Your task to perform on an android device: What's the news in Jamaica? Image 0: 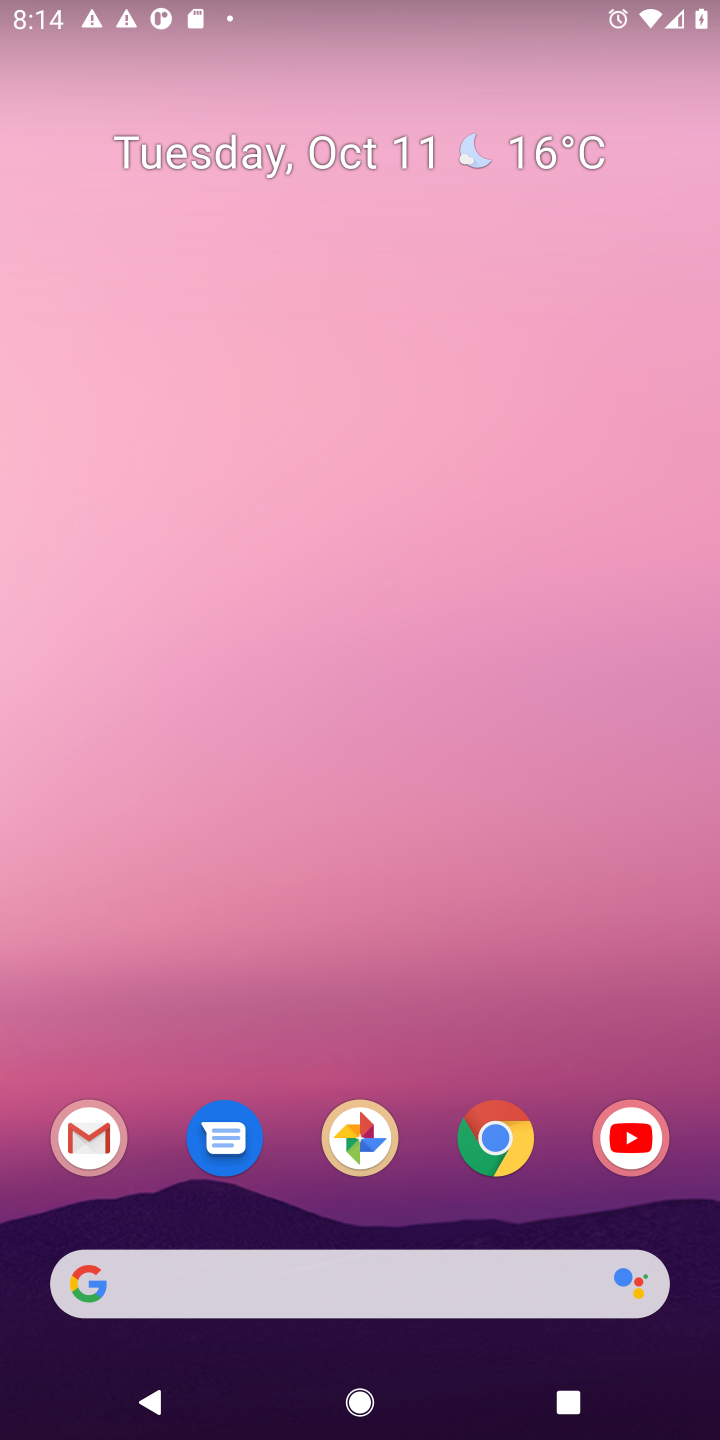
Step 0: click (333, 1267)
Your task to perform on an android device: What's the news in Jamaica? Image 1: 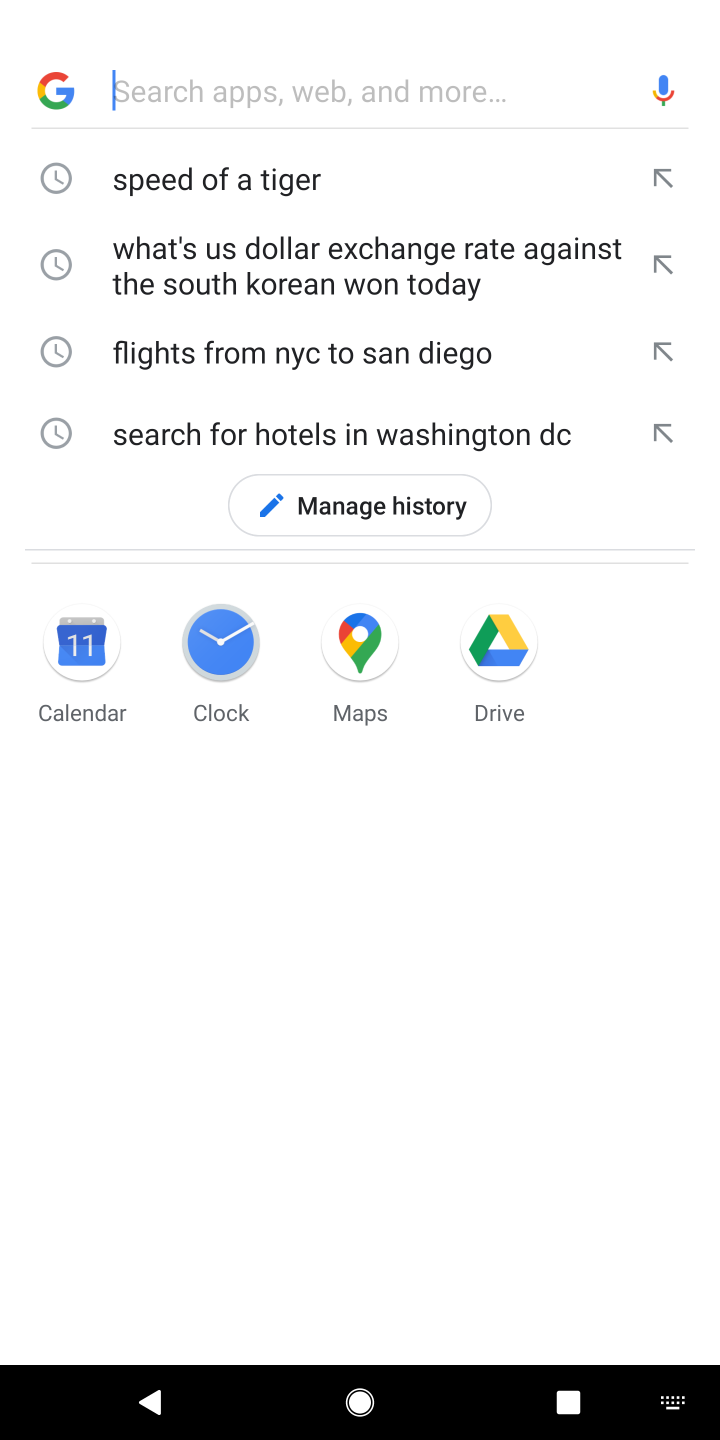
Step 1: type "news in jamaica"
Your task to perform on an android device: What's the news in Jamaica? Image 2: 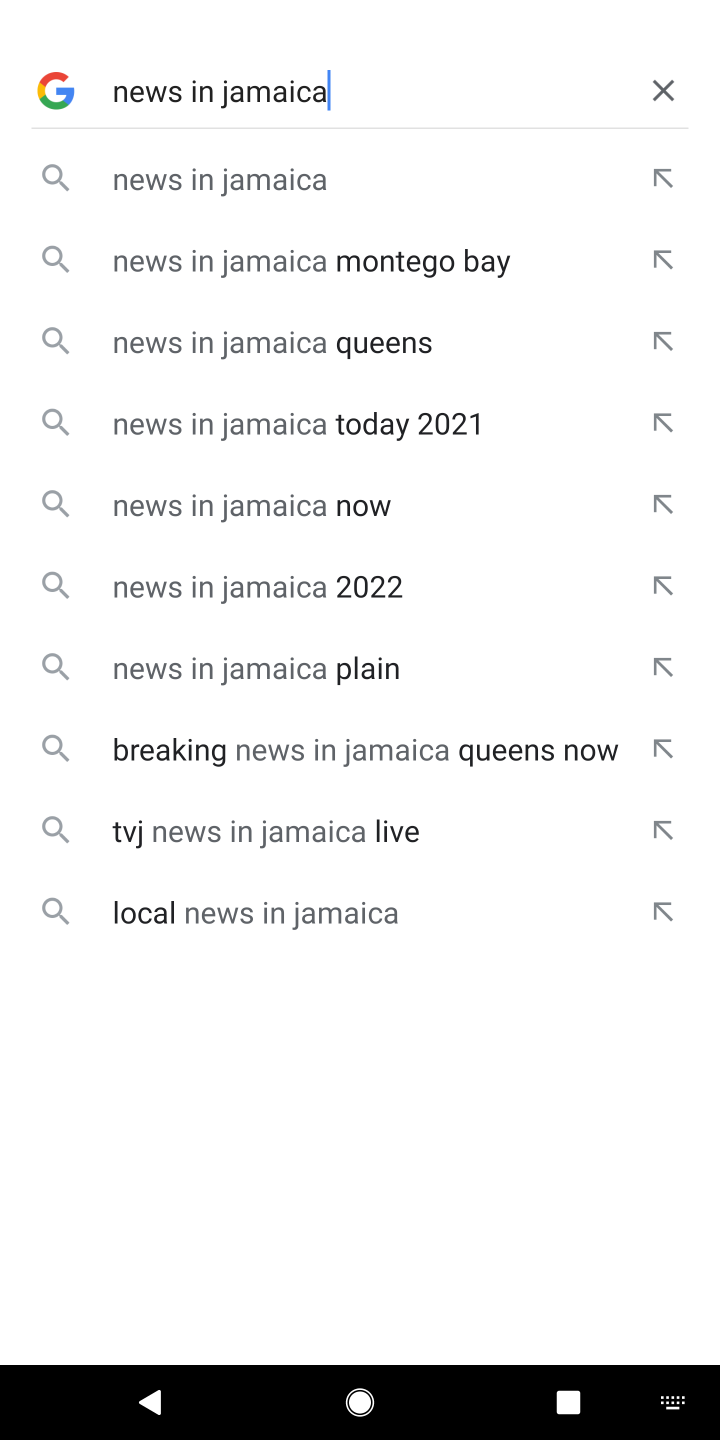
Step 2: click (258, 183)
Your task to perform on an android device: What's the news in Jamaica? Image 3: 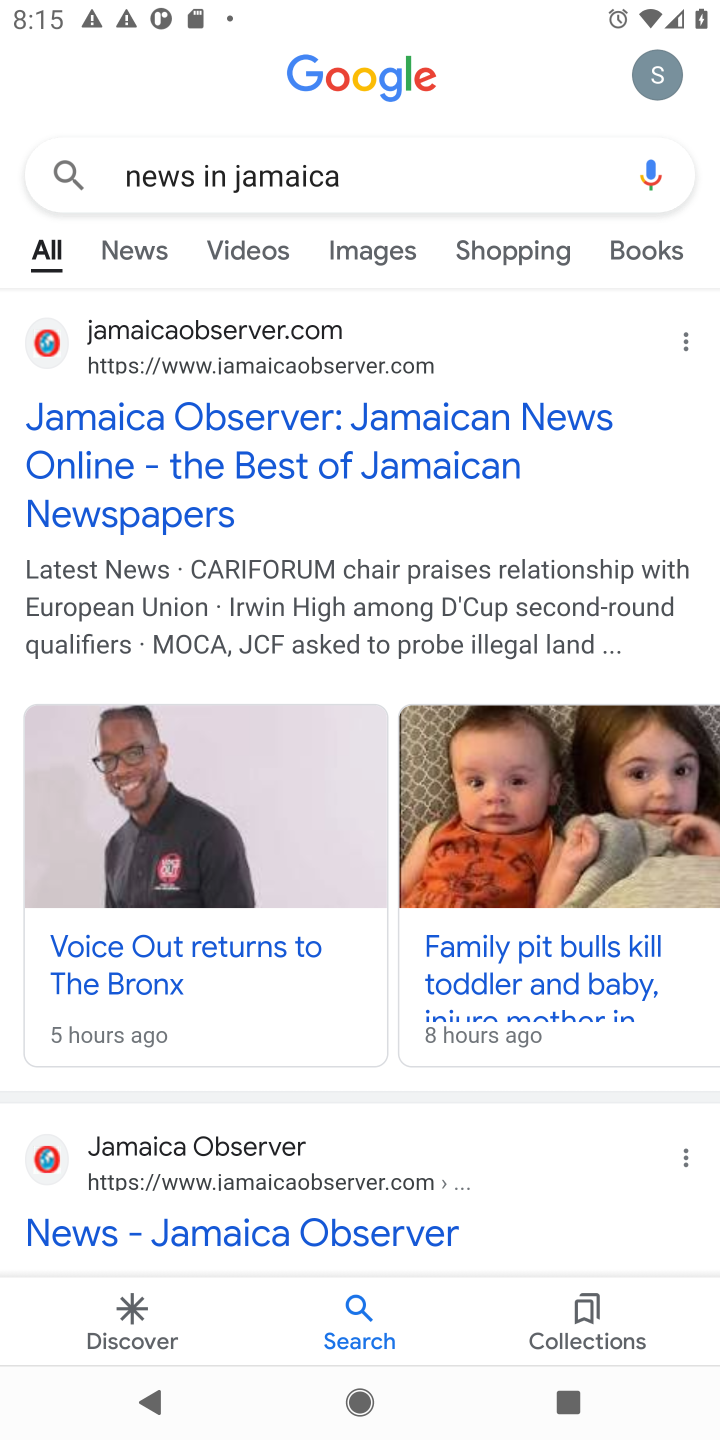
Step 3: click (199, 413)
Your task to perform on an android device: What's the news in Jamaica? Image 4: 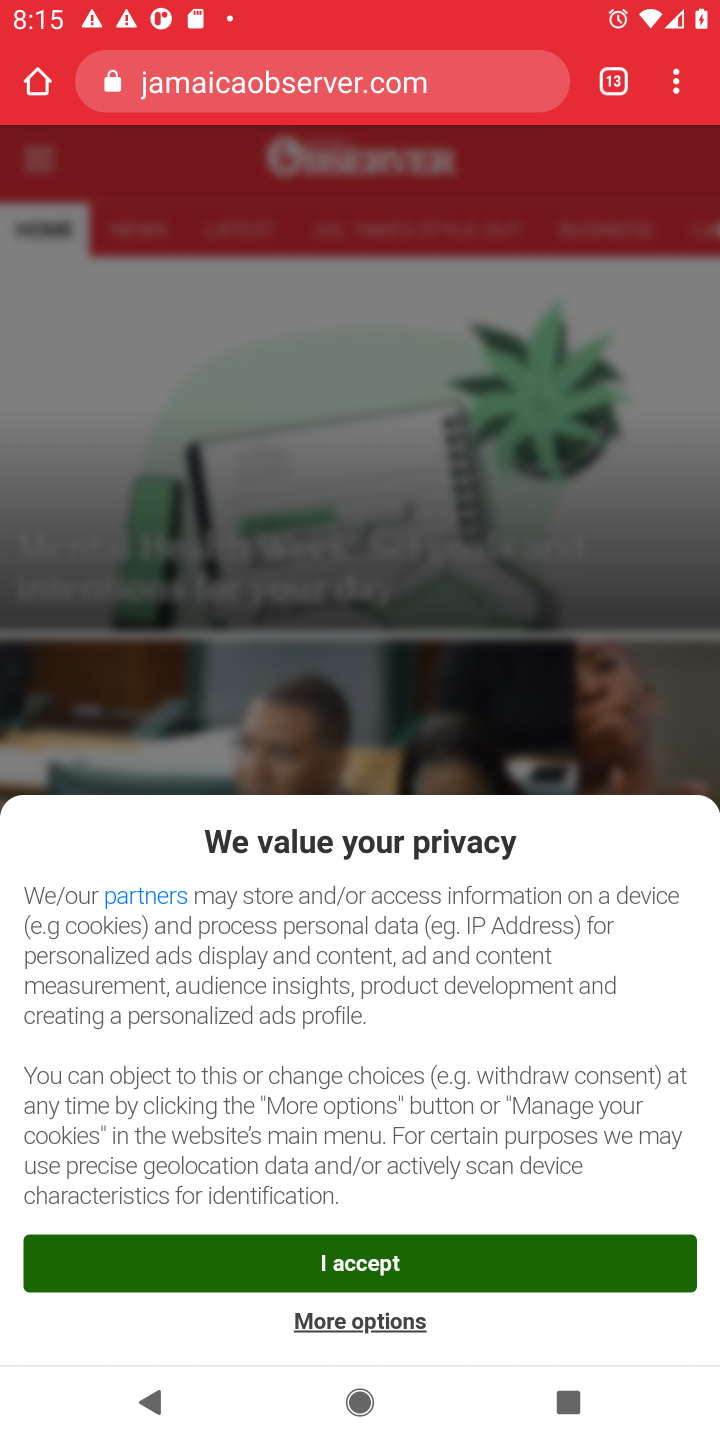
Step 4: click (389, 1246)
Your task to perform on an android device: What's the news in Jamaica? Image 5: 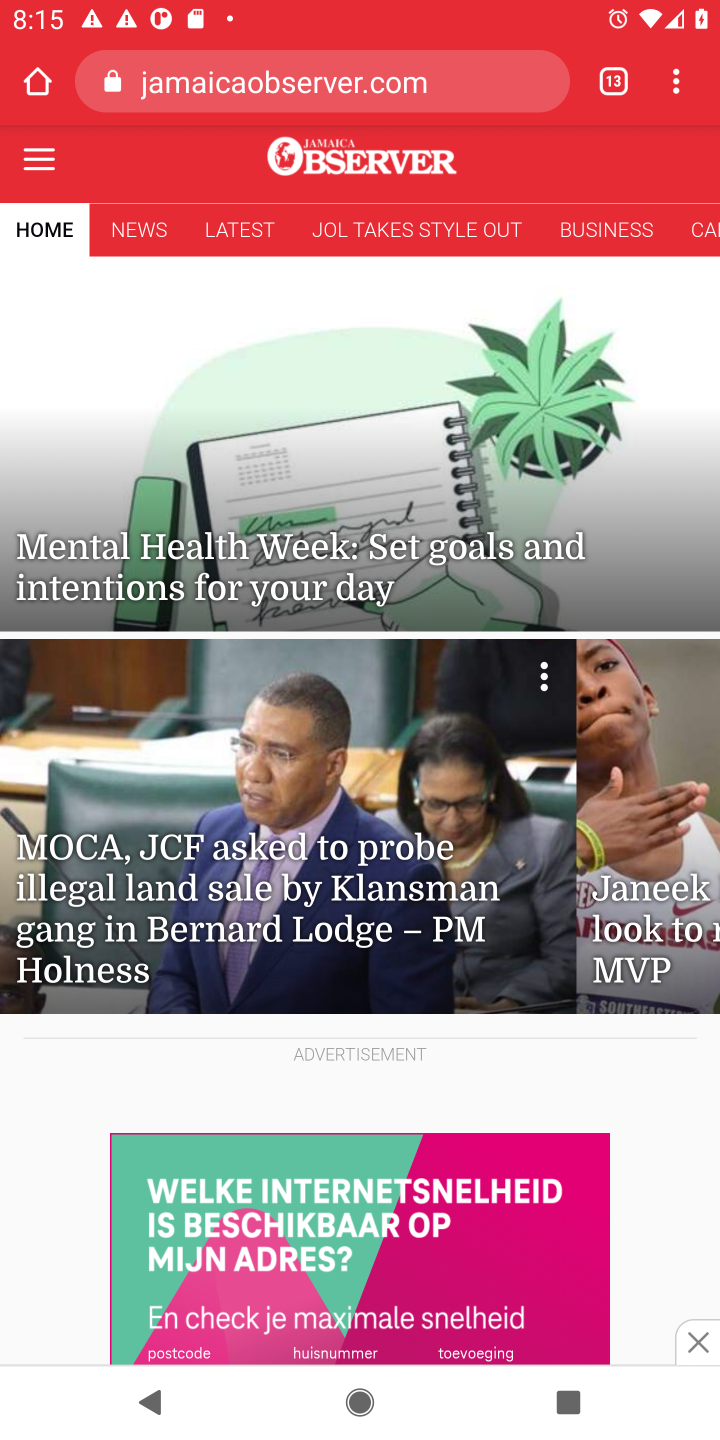
Step 5: drag from (404, 801) to (383, 725)
Your task to perform on an android device: What's the news in Jamaica? Image 6: 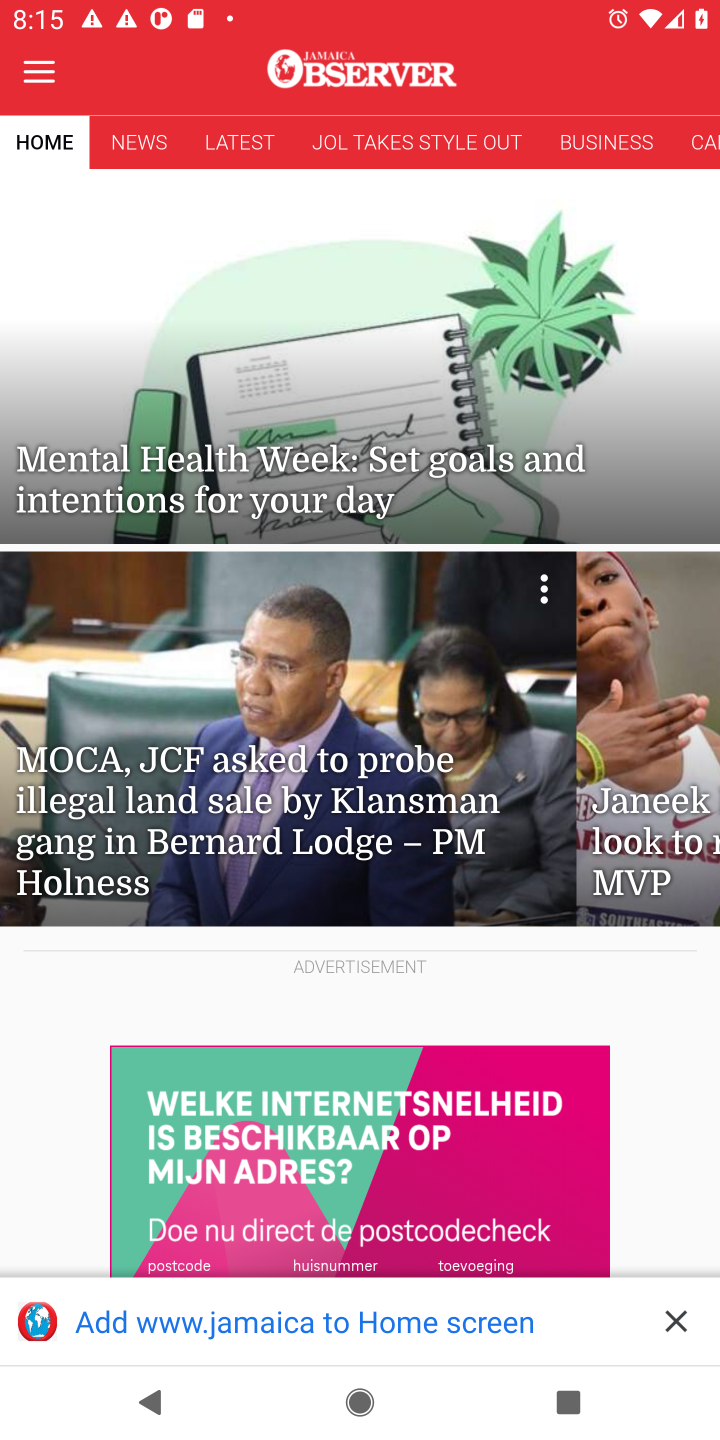
Step 6: click (509, 372)
Your task to perform on an android device: What's the news in Jamaica? Image 7: 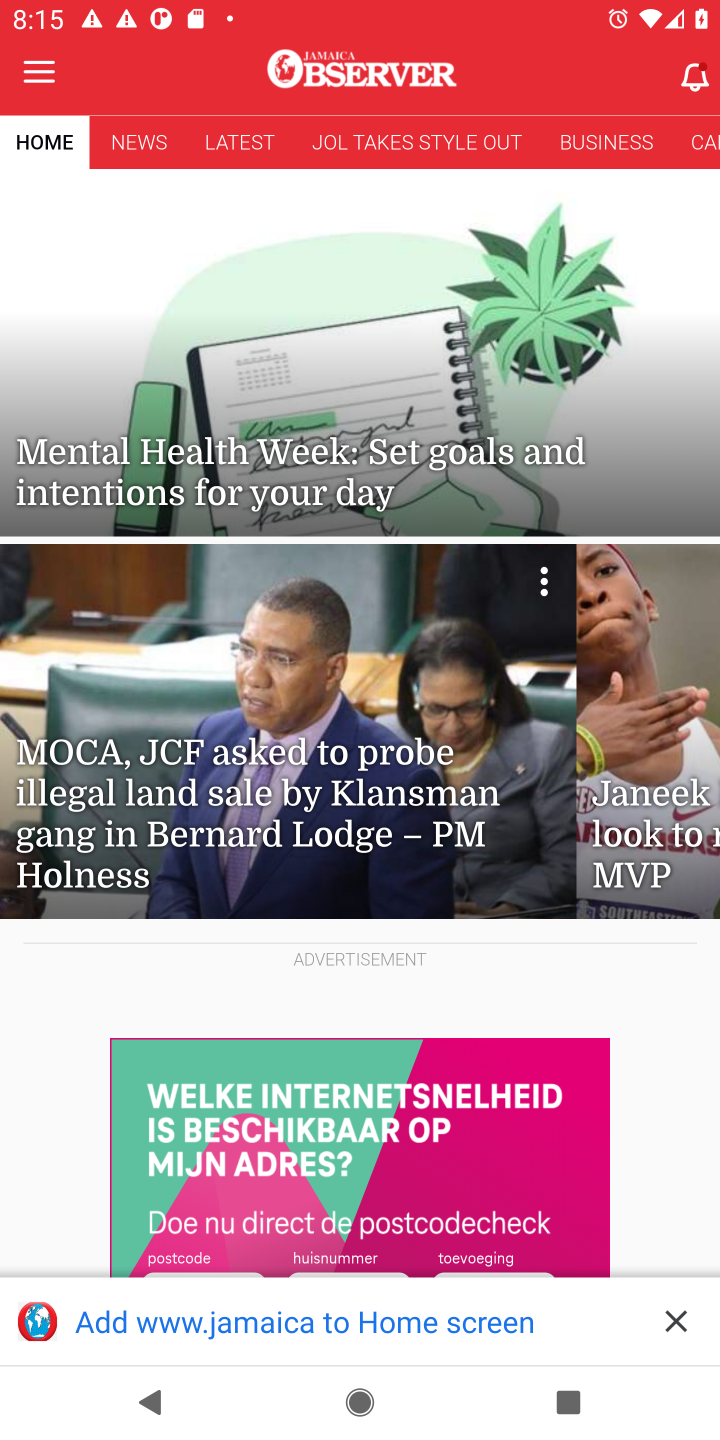
Step 7: drag from (493, 772) to (450, 480)
Your task to perform on an android device: What's the news in Jamaica? Image 8: 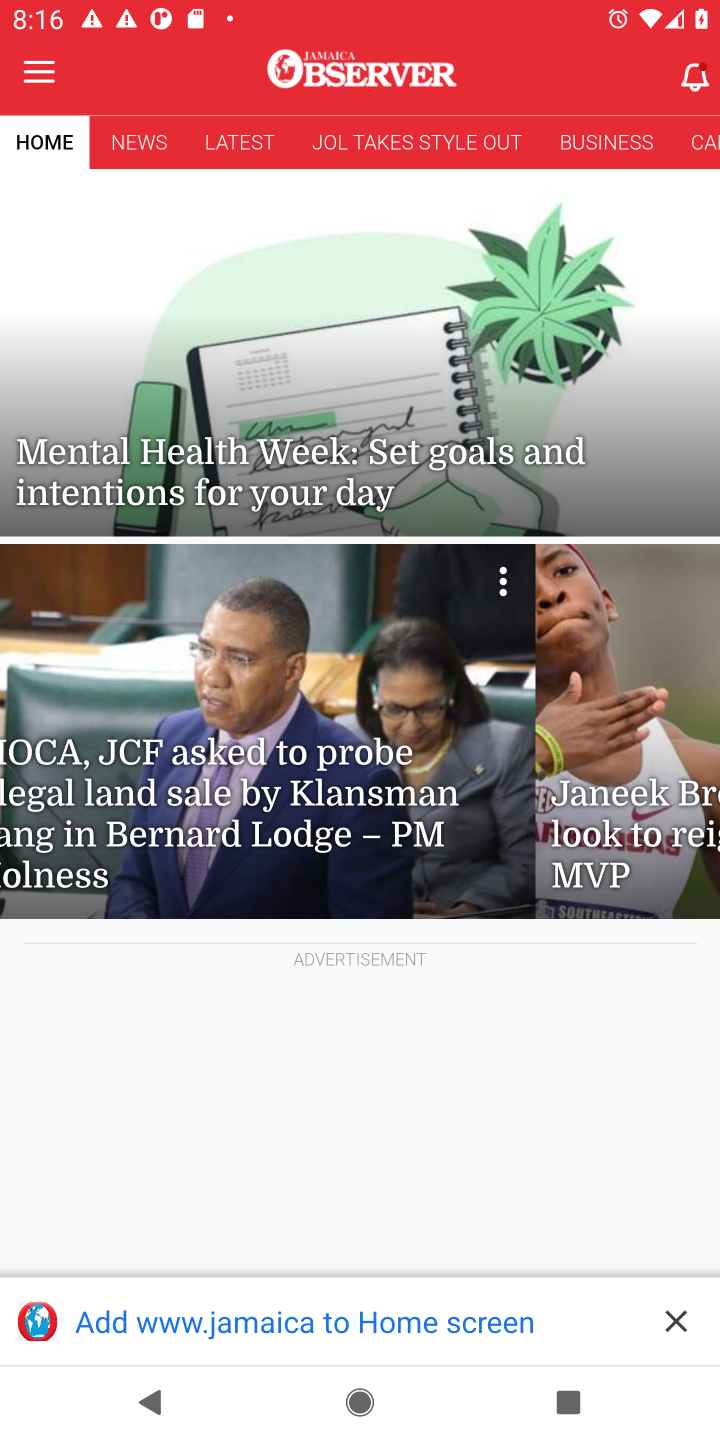
Step 8: drag from (429, 815) to (360, 545)
Your task to perform on an android device: What's the news in Jamaica? Image 9: 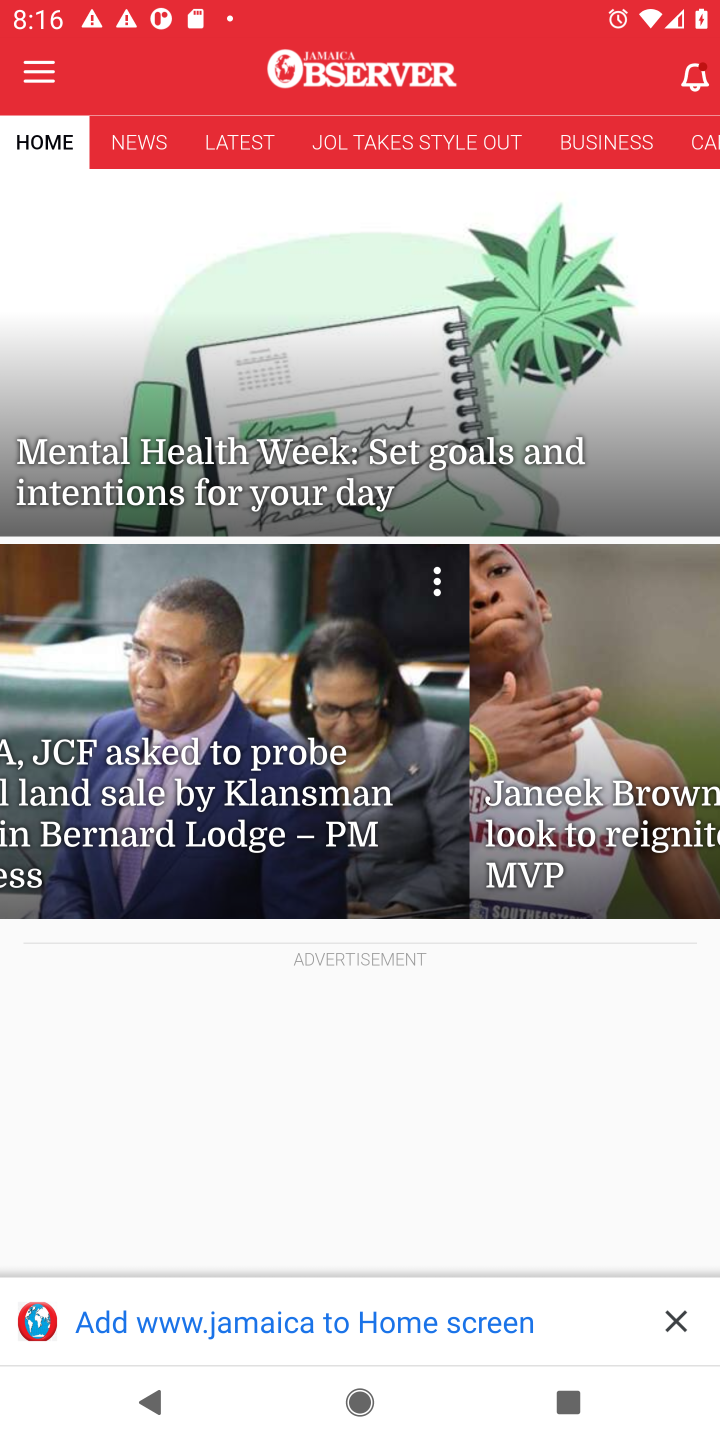
Step 9: drag from (416, 393) to (349, 119)
Your task to perform on an android device: What's the news in Jamaica? Image 10: 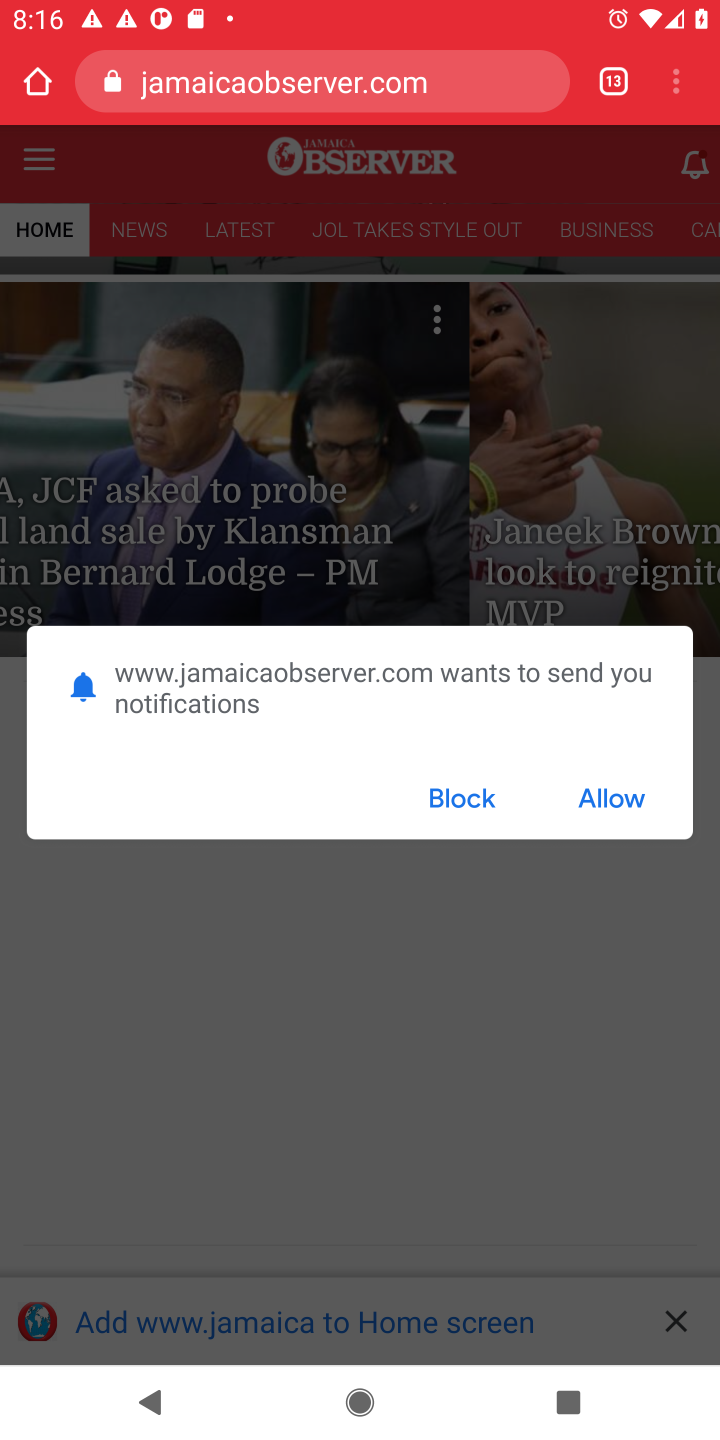
Step 10: click (633, 797)
Your task to perform on an android device: What's the news in Jamaica? Image 11: 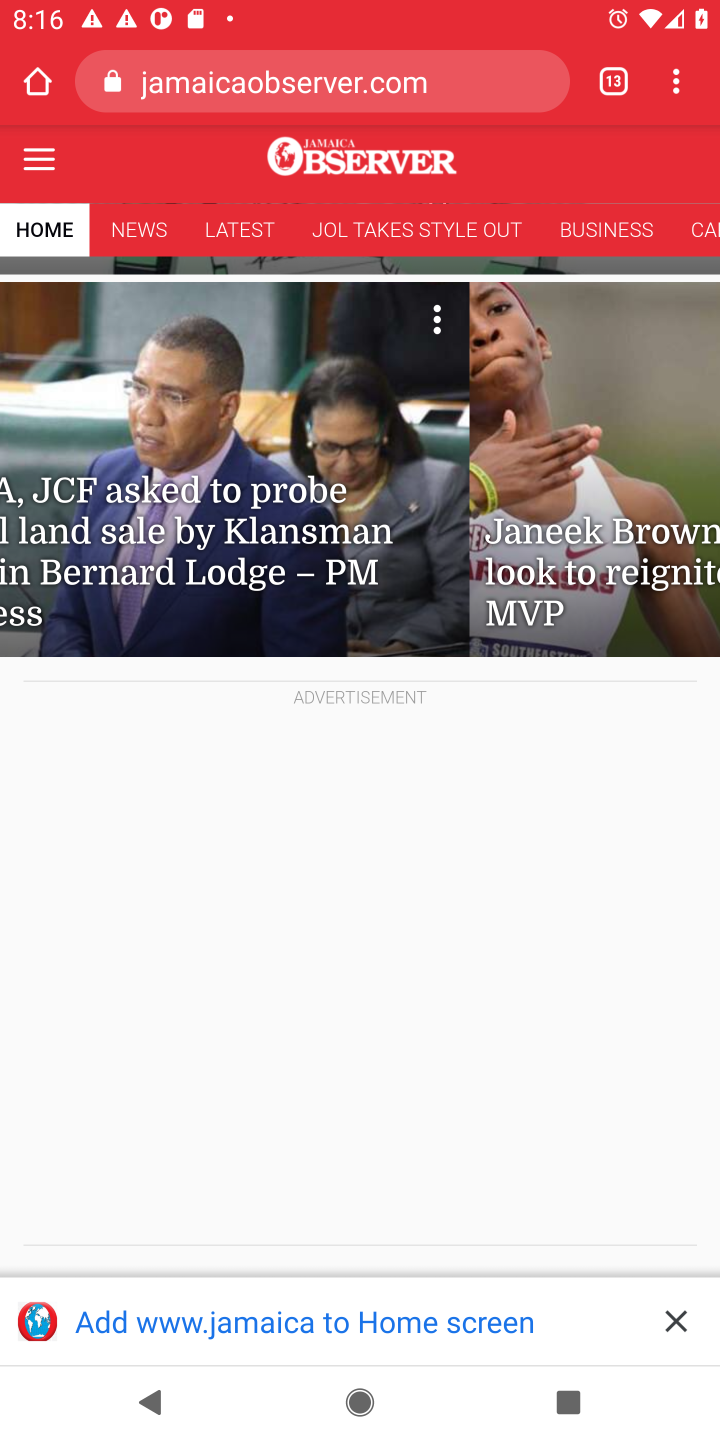
Step 11: task complete